Your task to perform on an android device: Search for the best rated 4k tvs on Walmart. Image 0: 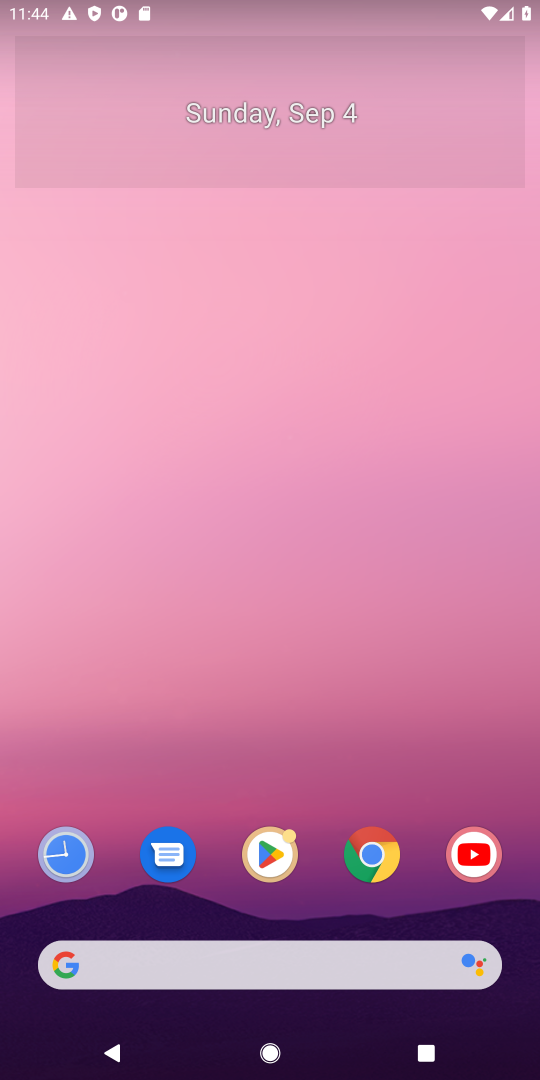
Step 0: press home button
Your task to perform on an android device: Search for the best rated 4k tvs on Walmart. Image 1: 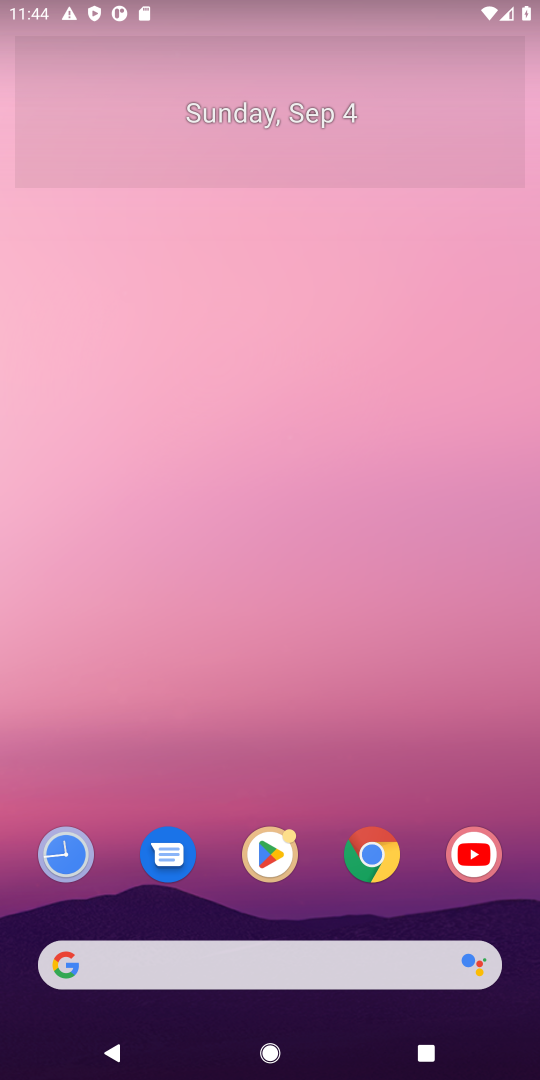
Step 1: click (233, 955)
Your task to perform on an android device: Search for the best rated 4k tvs on Walmart. Image 2: 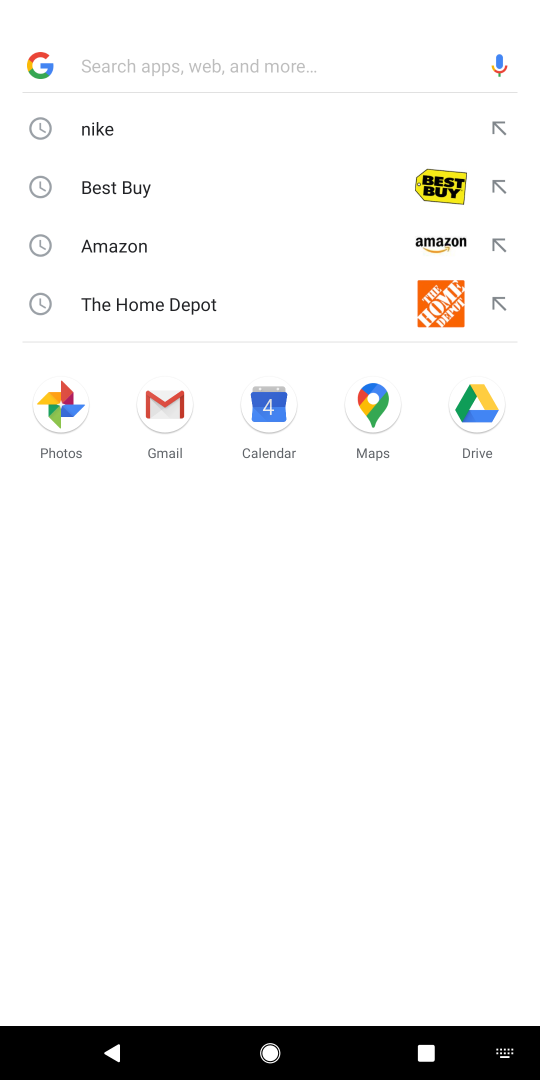
Step 2: press enter
Your task to perform on an android device: Search for the best rated 4k tvs on Walmart. Image 3: 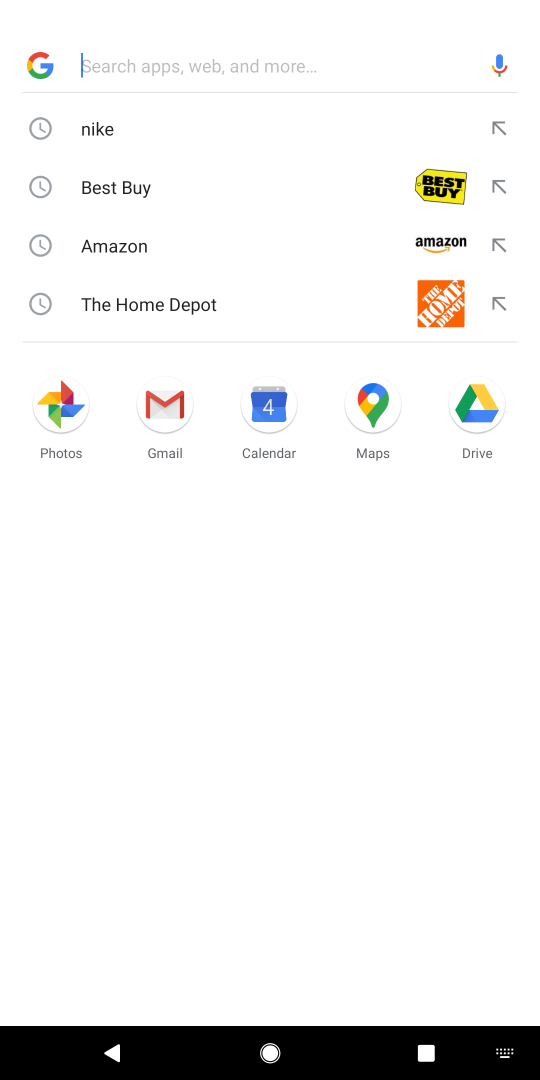
Step 3: type "walmart"
Your task to perform on an android device: Search for the best rated 4k tvs on Walmart. Image 4: 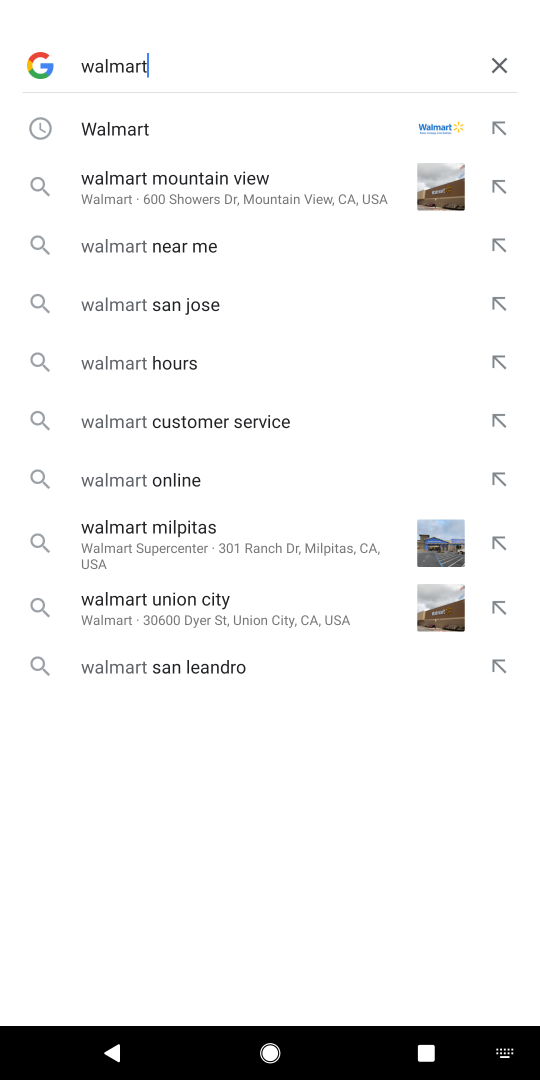
Step 4: click (146, 128)
Your task to perform on an android device: Search for the best rated 4k tvs on Walmart. Image 5: 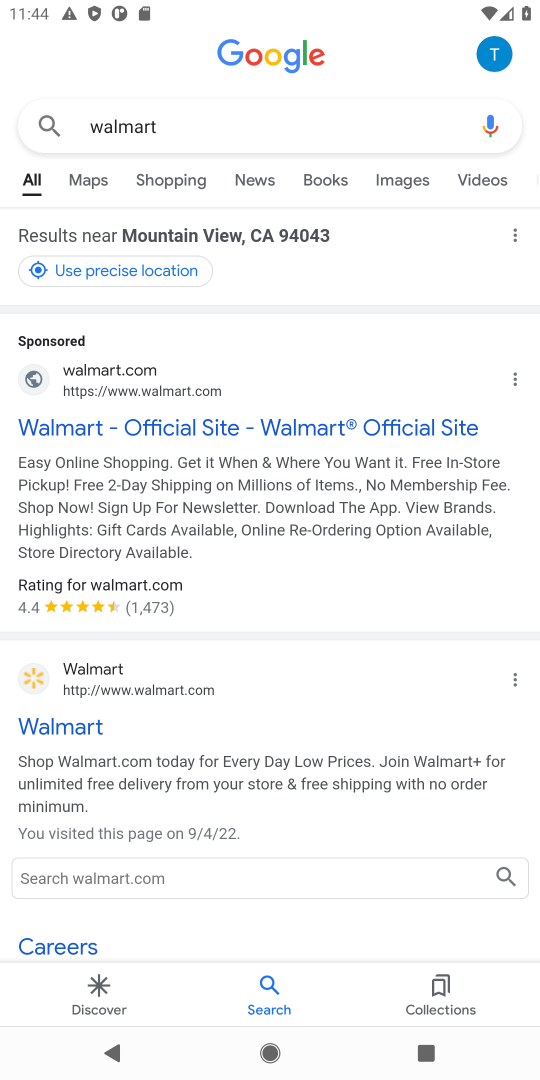
Step 5: click (190, 432)
Your task to perform on an android device: Search for the best rated 4k tvs on Walmart. Image 6: 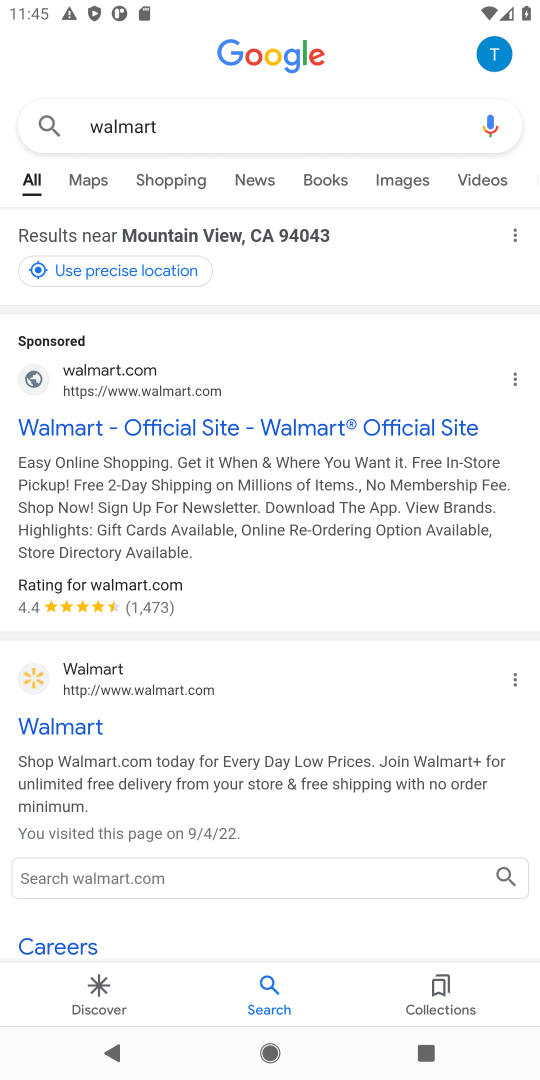
Step 6: click (227, 429)
Your task to perform on an android device: Search for the best rated 4k tvs on Walmart. Image 7: 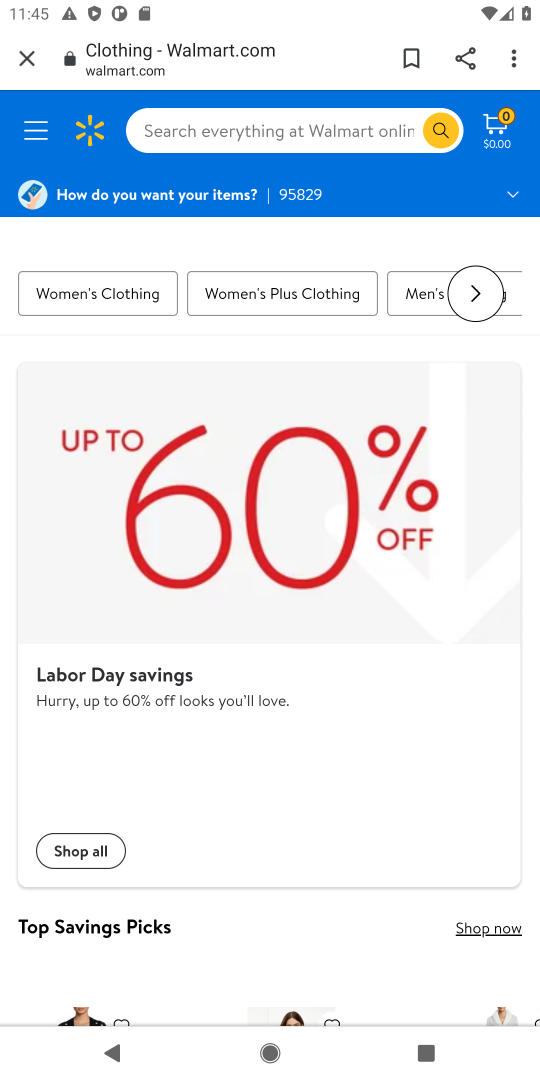
Step 7: click (199, 121)
Your task to perform on an android device: Search for the best rated 4k tvs on Walmart. Image 8: 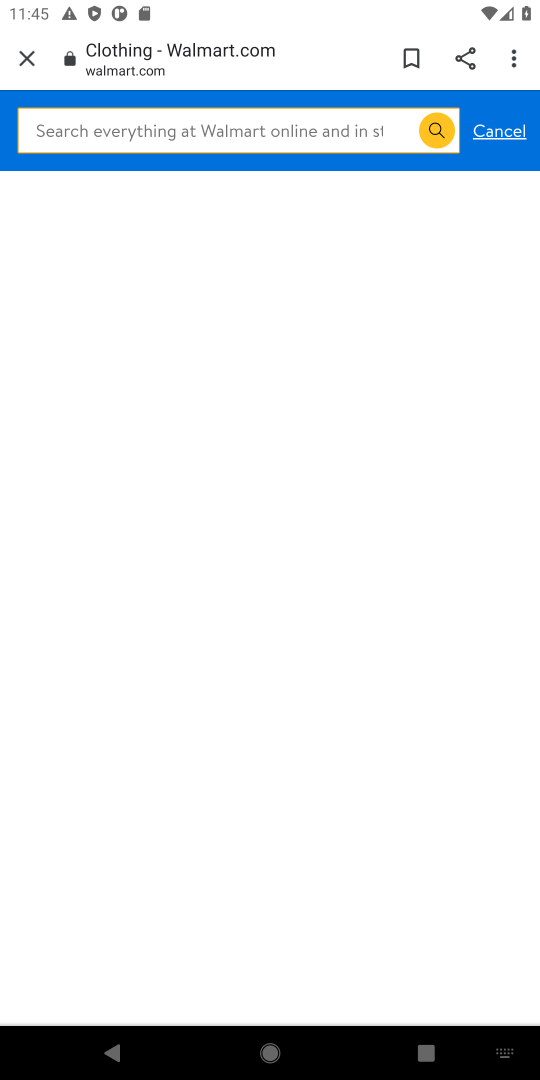
Step 8: type "best rated 4k tvs"
Your task to perform on an android device: Search for the best rated 4k tvs on Walmart. Image 9: 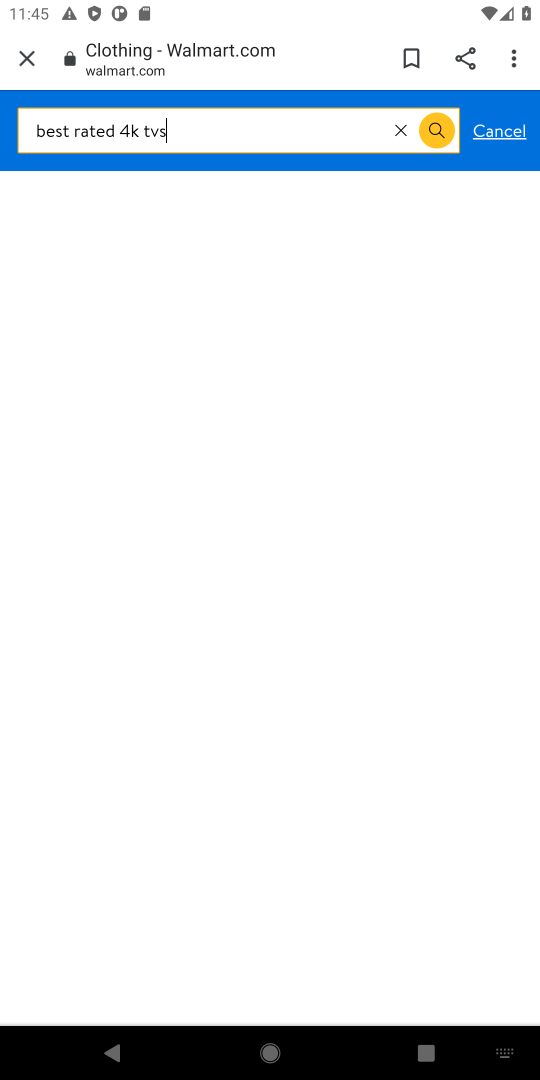
Step 9: press enter
Your task to perform on an android device: Search for the best rated 4k tvs on Walmart. Image 10: 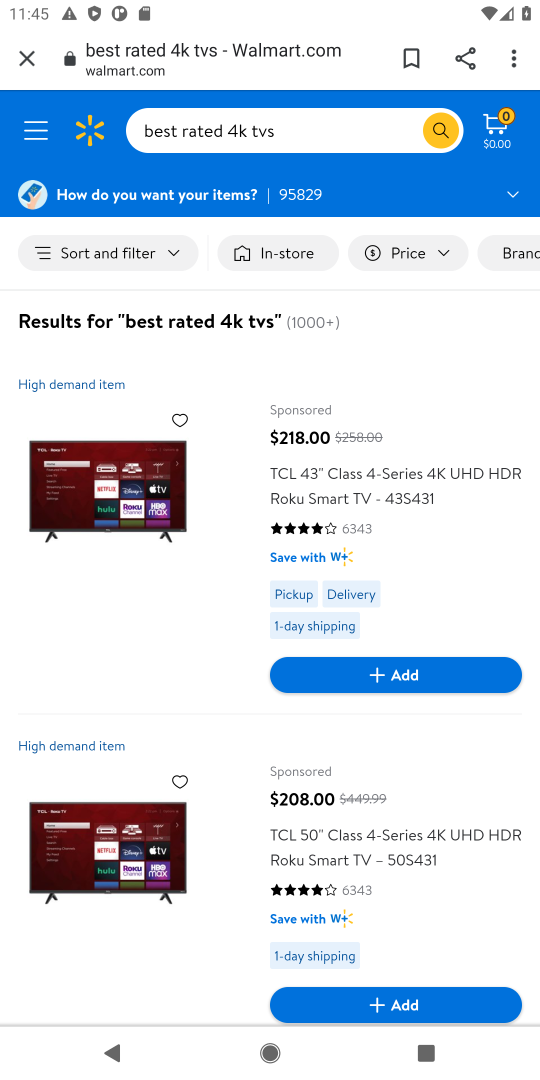
Step 10: task complete